Your task to perform on an android device: Open the calendar and show me this week's events? Image 0: 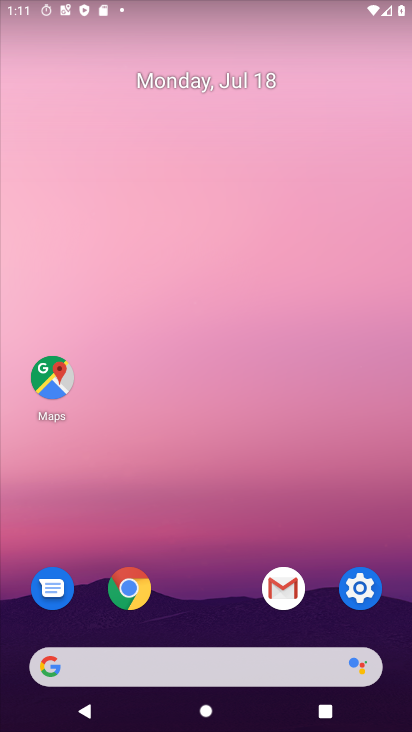
Step 0: drag from (229, 655) to (154, 144)
Your task to perform on an android device: Open the calendar and show me this week's events? Image 1: 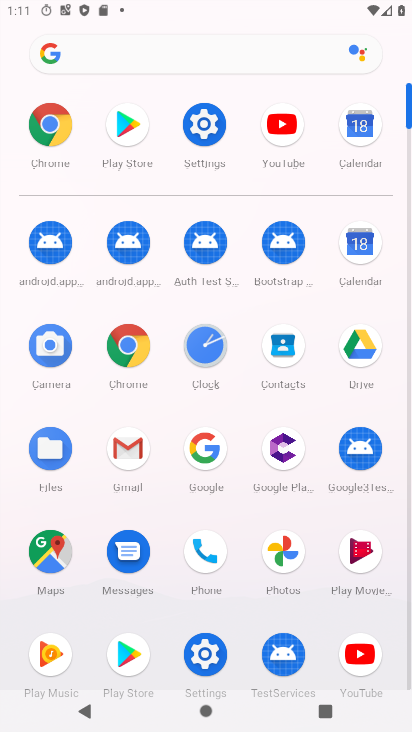
Step 1: click (372, 257)
Your task to perform on an android device: Open the calendar and show me this week's events? Image 2: 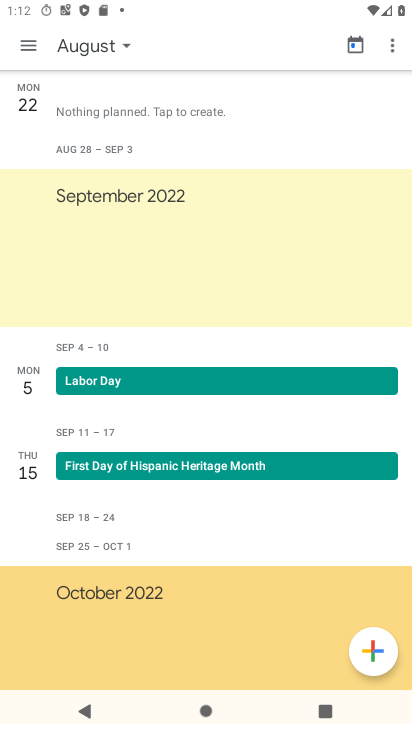
Step 2: click (29, 51)
Your task to perform on an android device: Open the calendar and show me this week's events? Image 3: 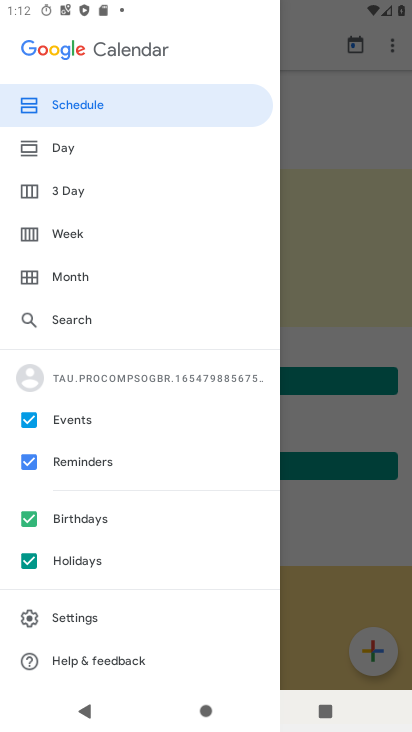
Step 3: click (73, 280)
Your task to perform on an android device: Open the calendar and show me this week's events? Image 4: 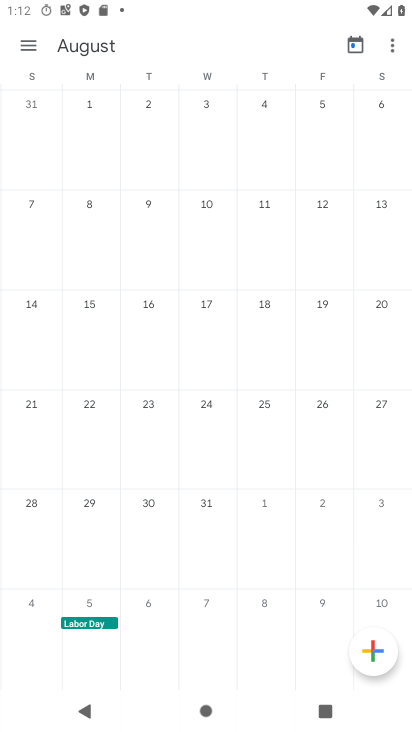
Step 4: drag from (65, 402) to (411, 250)
Your task to perform on an android device: Open the calendar and show me this week's events? Image 5: 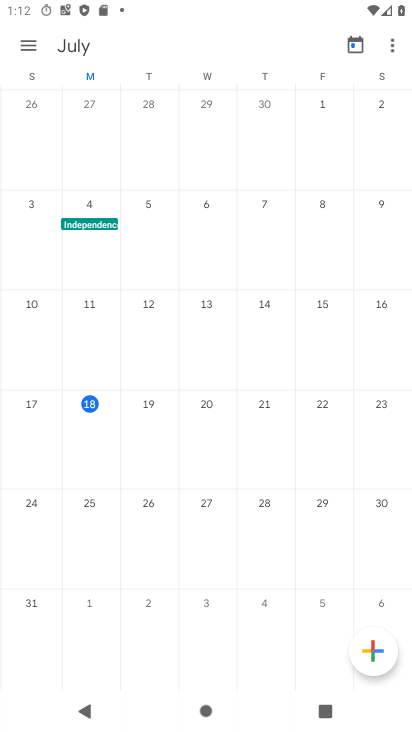
Step 5: click (95, 394)
Your task to perform on an android device: Open the calendar and show me this week's events? Image 6: 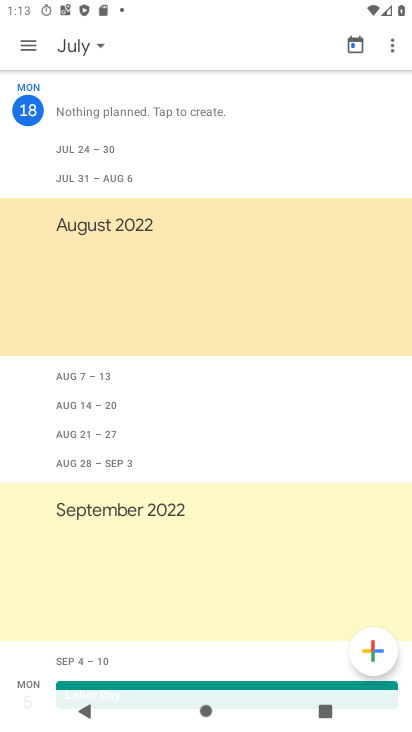
Step 6: task complete